Your task to perform on an android device: check google app version Image 0: 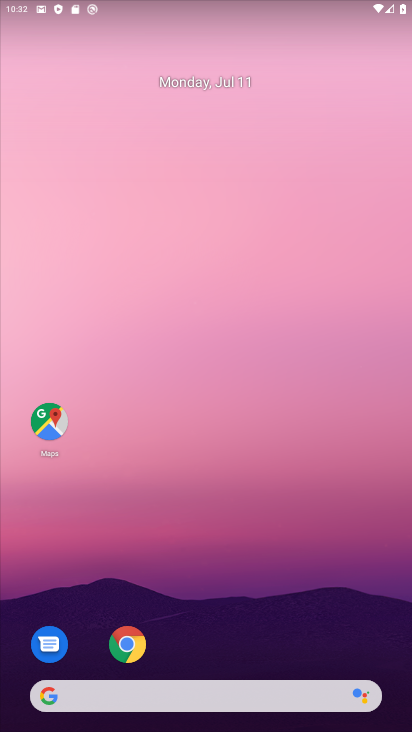
Step 0: drag from (240, 626) to (166, 127)
Your task to perform on an android device: check google app version Image 1: 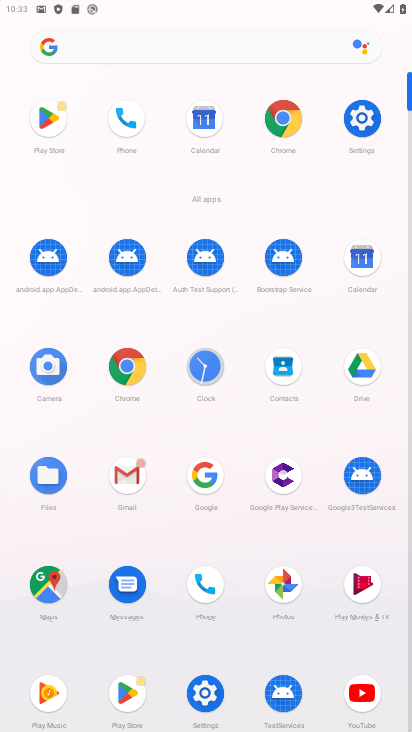
Step 1: click (192, 471)
Your task to perform on an android device: check google app version Image 2: 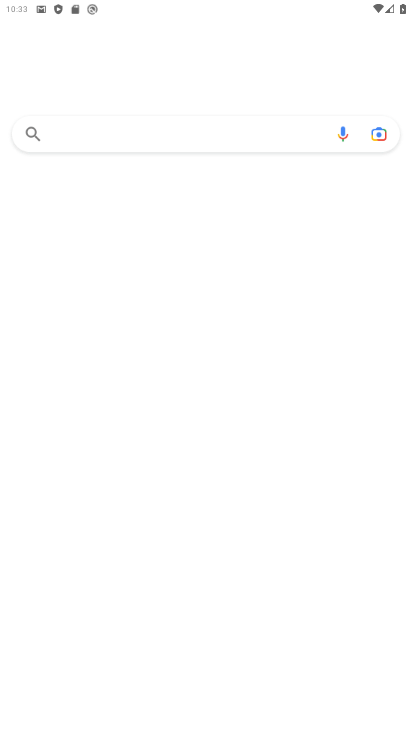
Step 2: click (200, 465)
Your task to perform on an android device: check google app version Image 3: 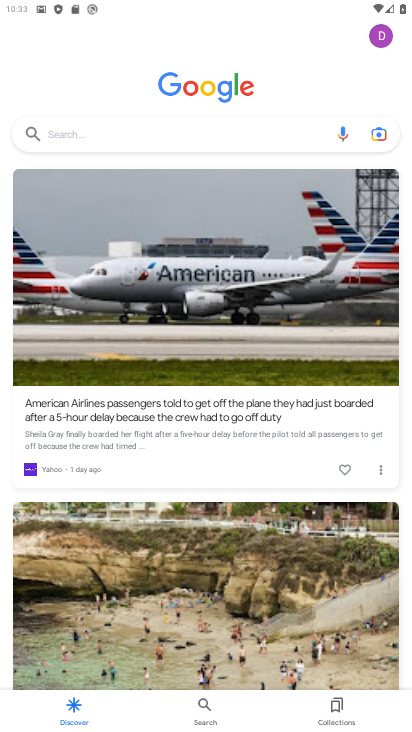
Step 3: click (380, 33)
Your task to perform on an android device: check google app version Image 4: 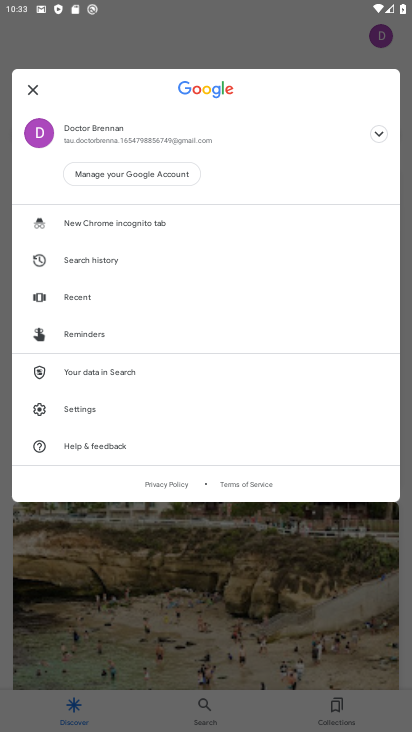
Step 4: click (72, 408)
Your task to perform on an android device: check google app version Image 5: 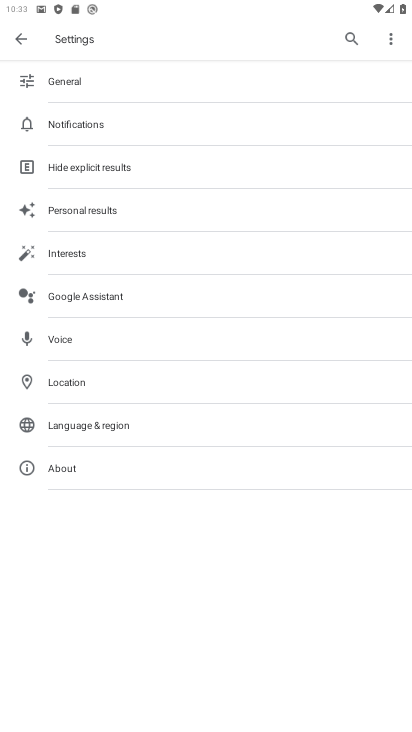
Step 5: click (96, 474)
Your task to perform on an android device: check google app version Image 6: 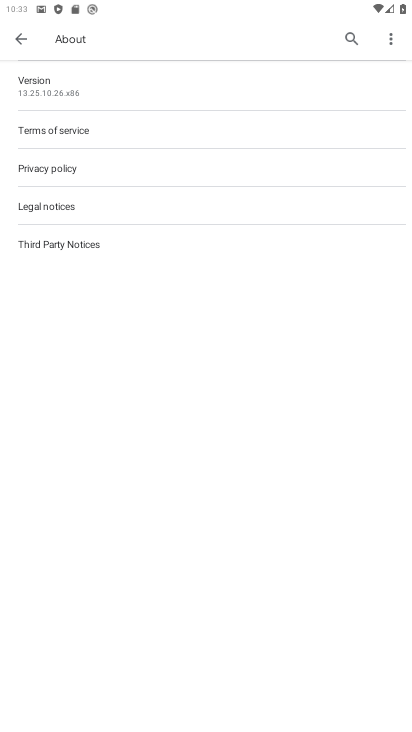
Step 6: click (60, 91)
Your task to perform on an android device: check google app version Image 7: 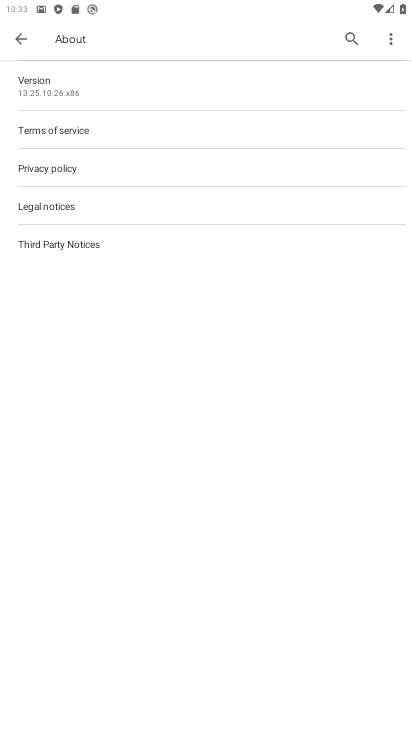
Step 7: task complete